Your task to perform on an android device: toggle notifications settings in the gmail app Image 0: 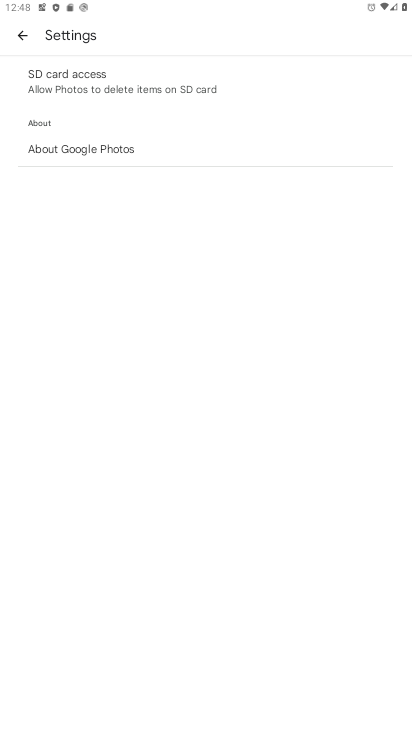
Step 0: press home button
Your task to perform on an android device: toggle notifications settings in the gmail app Image 1: 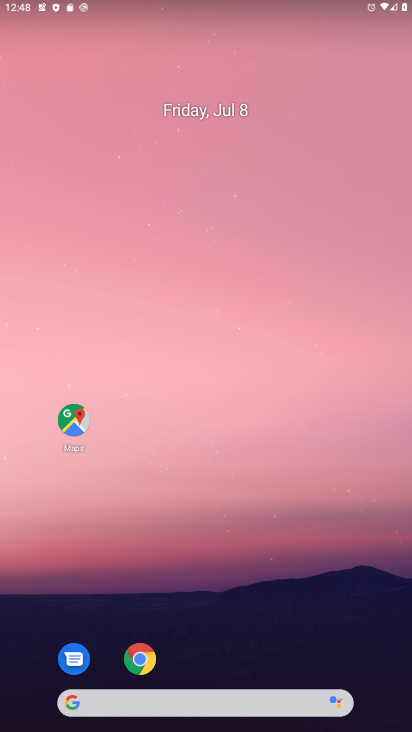
Step 1: drag from (241, 599) to (169, 136)
Your task to perform on an android device: toggle notifications settings in the gmail app Image 2: 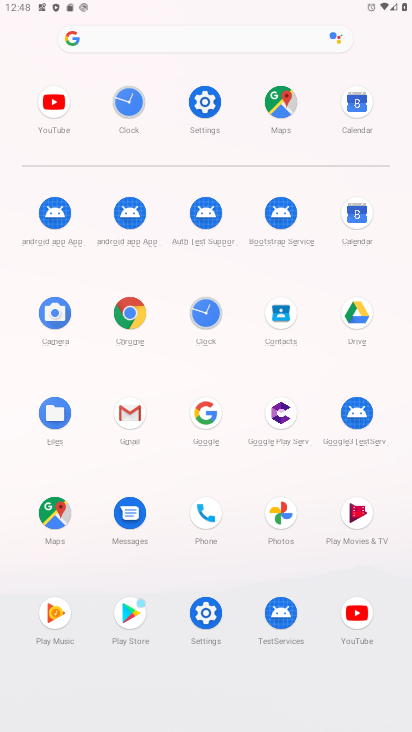
Step 2: click (125, 418)
Your task to perform on an android device: toggle notifications settings in the gmail app Image 3: 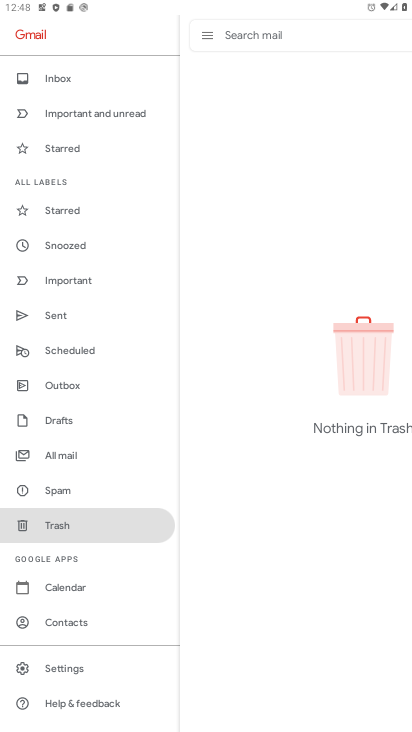
Step 3: click (67, 662)
Your task to perform on an android device: toggle notifications settings in the gmail app Image 4: 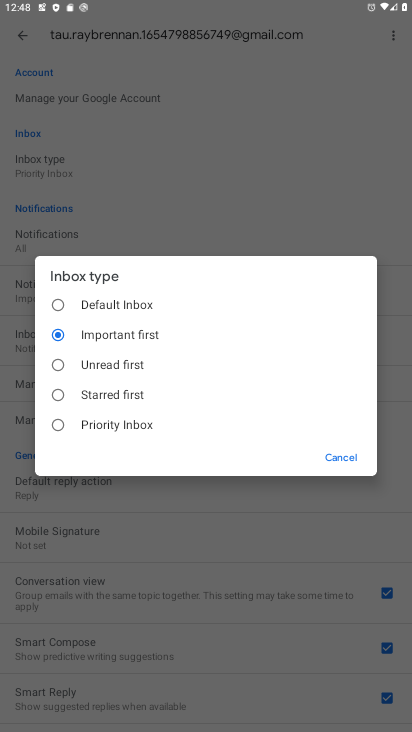
Step 4: click (347, 456)
Your task to perform on an android device: toggle notifications settings in the gmail app Image 5: 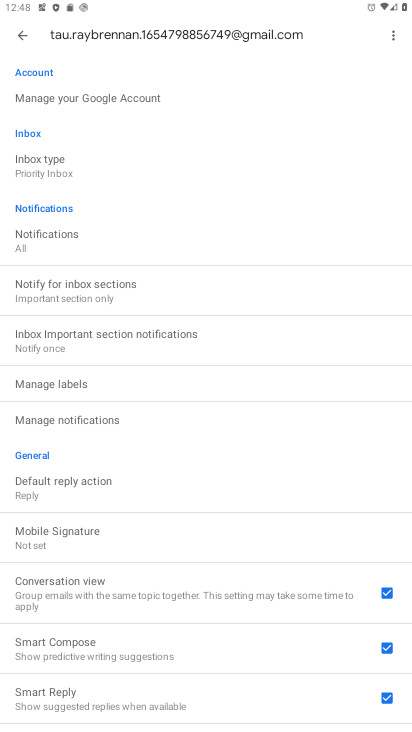
Step 5: click (17, 32)
Your task to perform on an android device: toggle notifications settings in the gmail app Image 6: 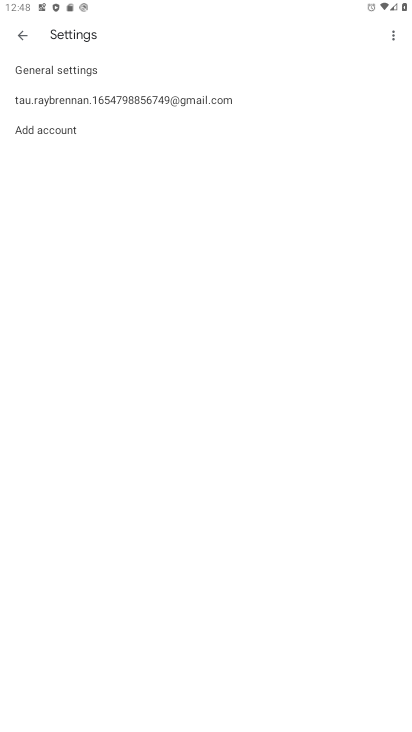
Step 6: click (40, 66)
Your task to perform on an android device: toggle notifications settings in the gmail app Image 7: 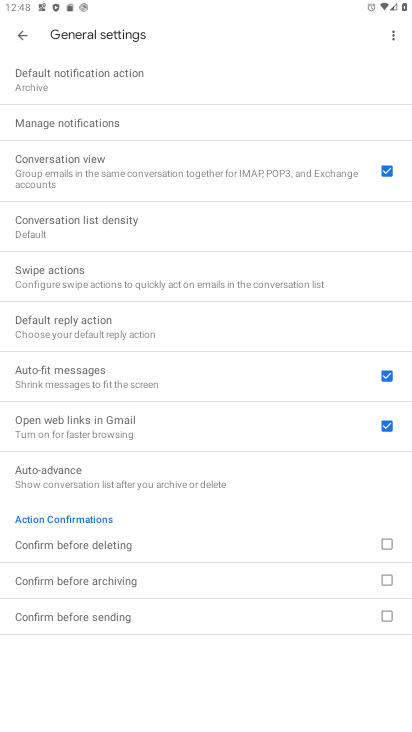
Step 7: click (64, 122)
Your task to perform on an android device: toggle notifications settings in the gmail app Image 8: 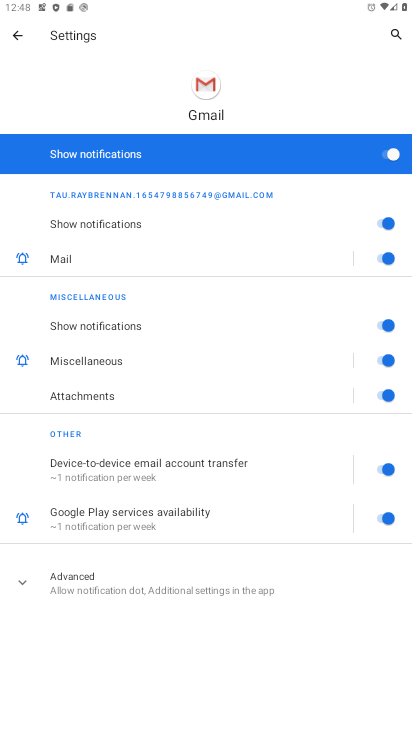
Step 8: click (395, 152)
Your task to perform on an android device: toggle notifications settings in the gmail app Image 9: 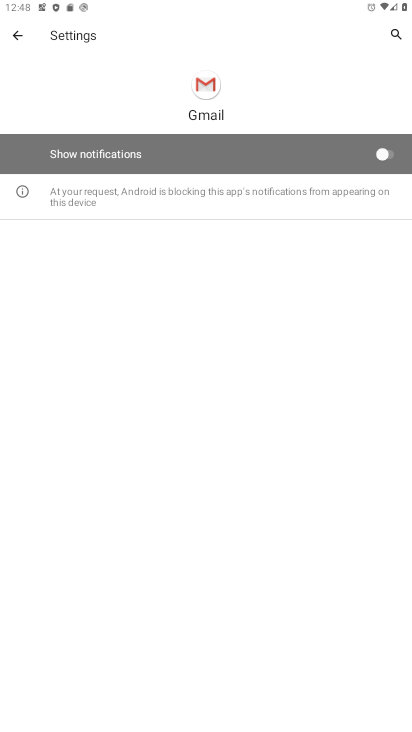
Step 9: task complete